Your task to perform on an android device: Open Chrome and go to settings Image 0: 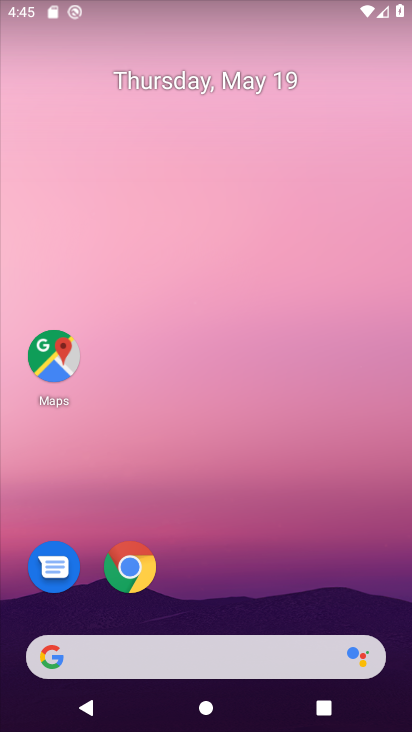
Step 0: click (129, 567)
Your task to perform on an android device: Open Chrome and go to settings Image 1: 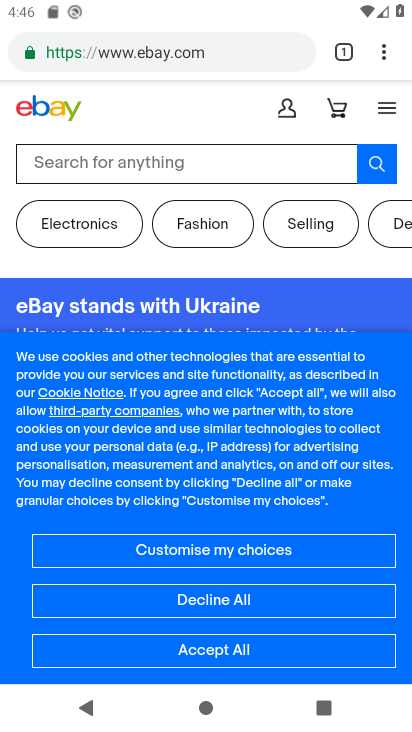
Step 1: click (384, 50)
Your task to perform on an android device: Open Chrome and go to settings Image 2: 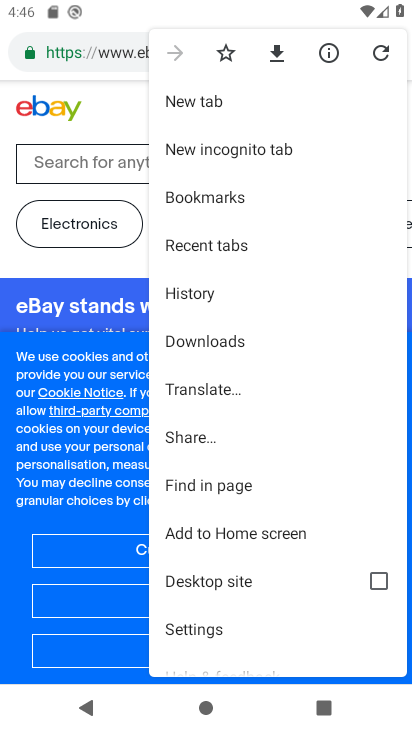
Step 2: click (216, 624)
Your task to perform on an android device: Open Chrome and go to settings Image 3: 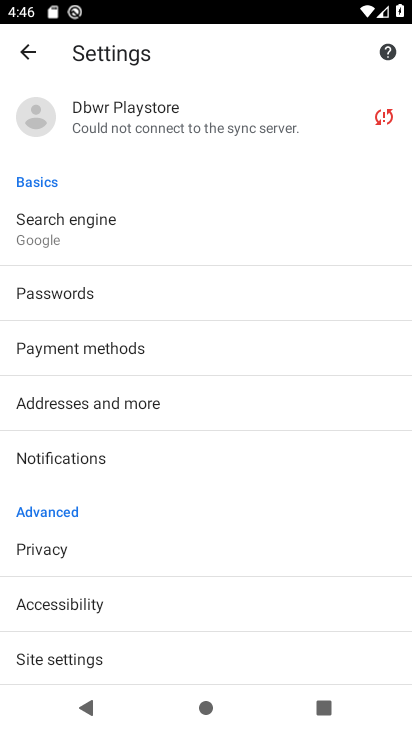
Step 3: task complete